Your task to perform on an android device: See recent photos Image 0: 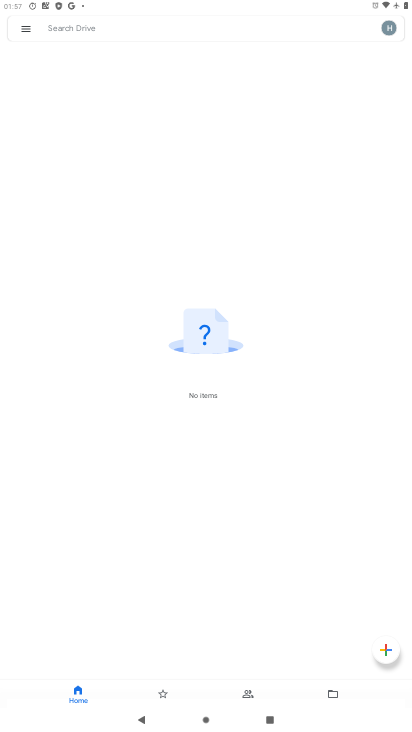
Step 0: press home button
Your task to perform on an android device: See recent photos Image 1: 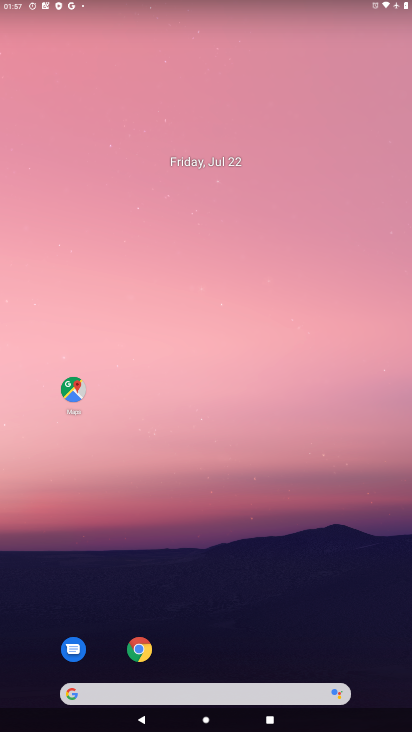
Step 1: drag from (259, 626) to (259, 91)
Your task to perform on an android device: See recent photos Image 2: 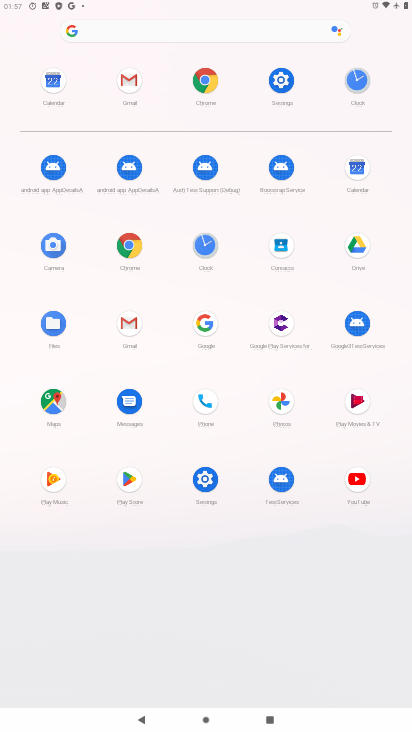
Step 2: click (285, 406)
Your task to perform on an android device: See recent photos Image 3: 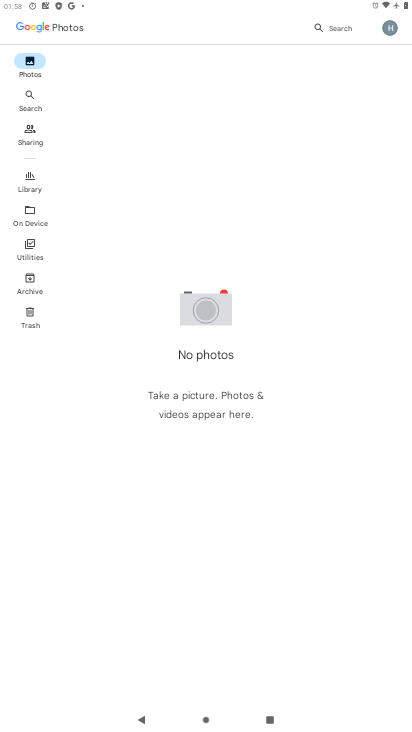
Step 3: task complete